Your task to perform on an android device: allow cookies in the chrome app Image 0: 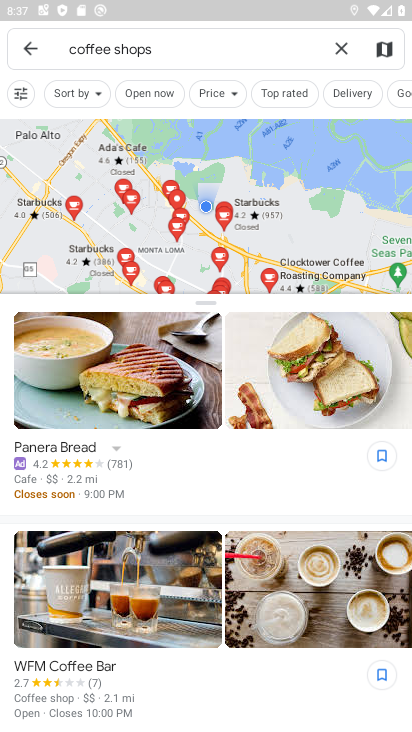
Step 0: press home button
Your task to perform on an android device: allow cookies in the chrome app Image 1: 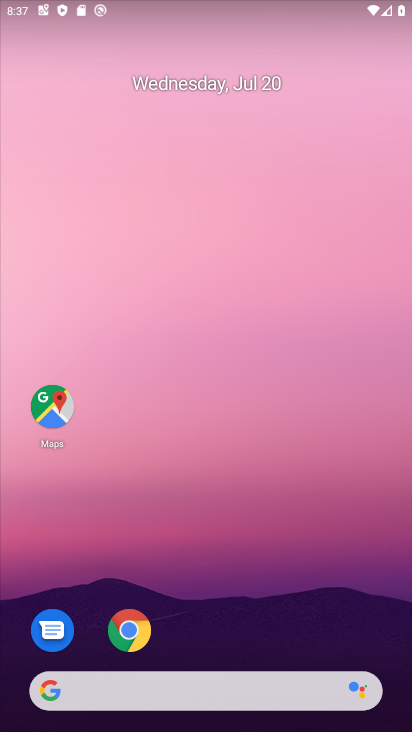
Step 1: click (126, 638)
Your task to perform on an android device: allow cookies in the chrome app Image 2: 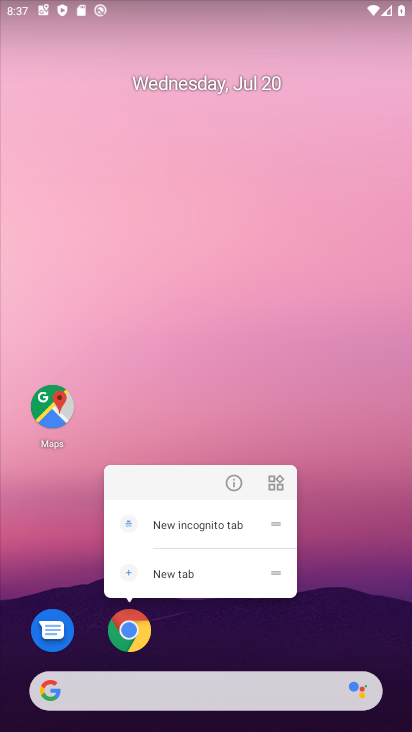
Step 2: click (128, 614)
Your task to perform on an android device: allow cookies in the chrome app Image 3: 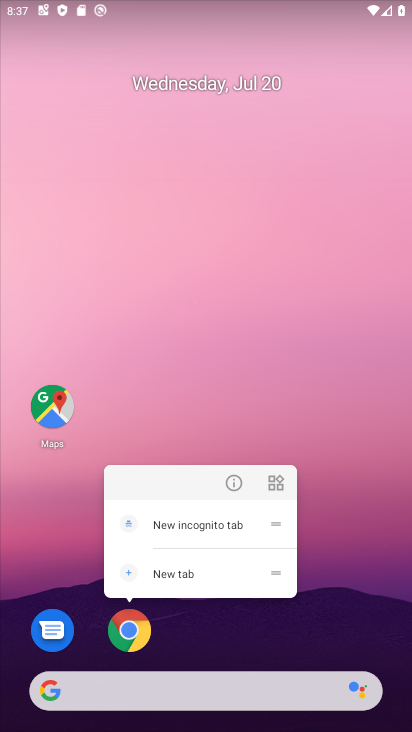
Step 3: click (127, 628)
Your task to perform on an android device: allow cookies in the chrome app Image 4: 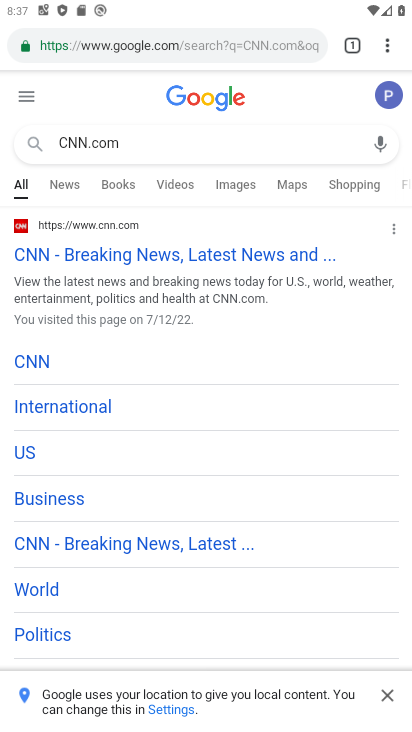
Step 4: click (384, 47)
Your task to perform on an android device: allow cookies in the chrome app Image 5: 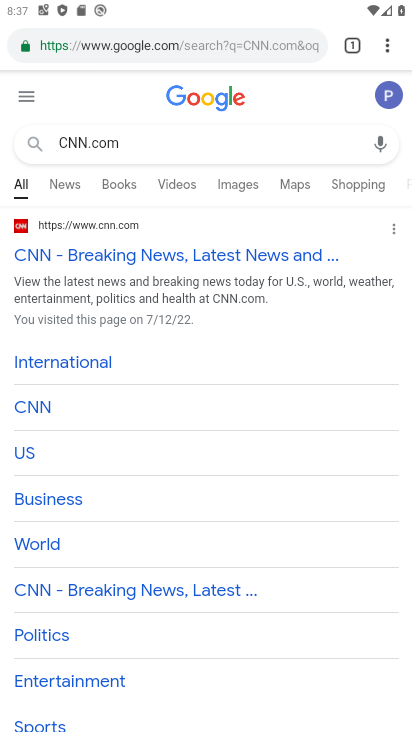
Step 5: click (388, 42)
Your task to perform on an android device: allow cookies in the chrome app Image 6: 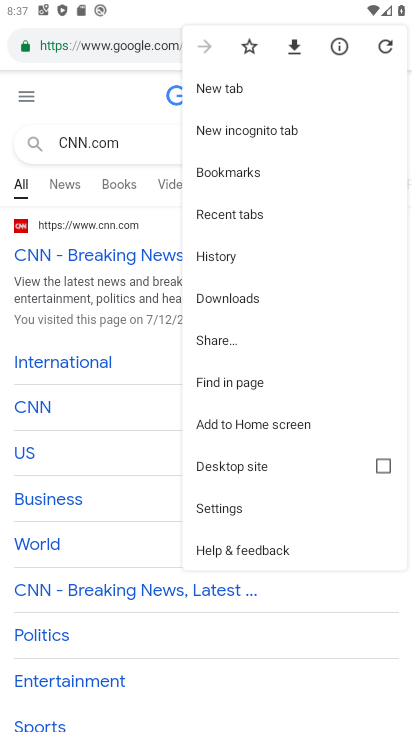
Step 6: click (235, 501)
Your task to perform on an android device: allow cookies in the chrome app Image 7: 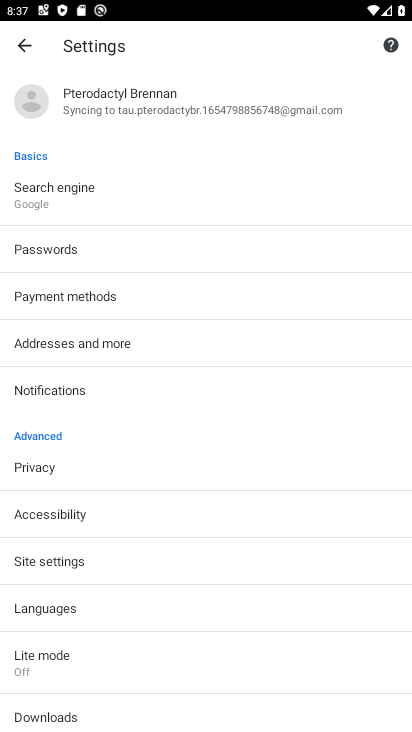
Step 7: click (64, 563)
Your task to perform on an android device: allow cookies in the chrome app Image 8: 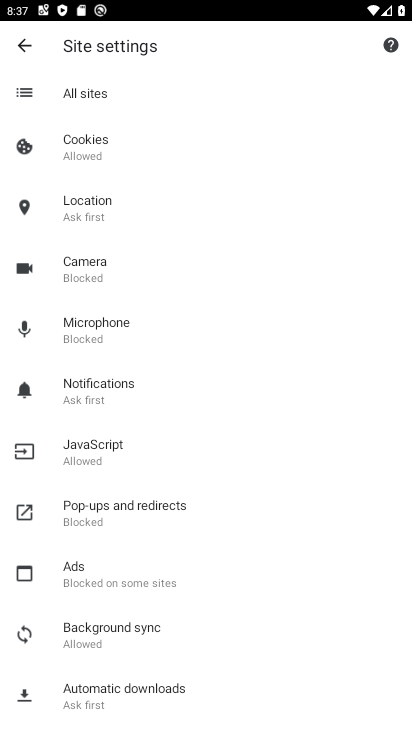
Step 8: click (93, 139)
Your task to perform on an android device: allow cookies in the chrome app Image 9: 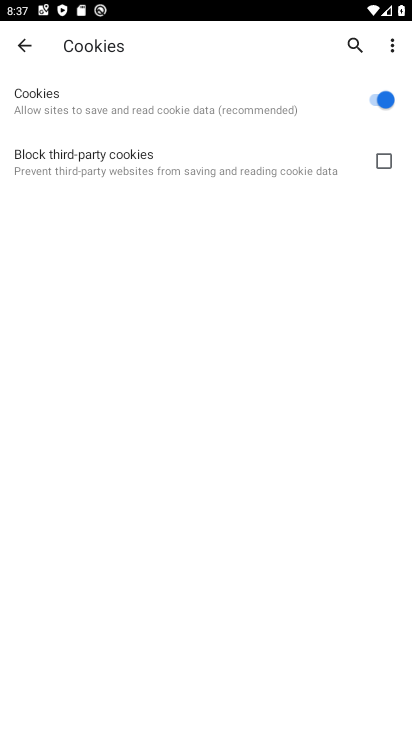
Step 9: task complete